Your task to perform on an android device: What's the weather going to be this weekend? Image 0: 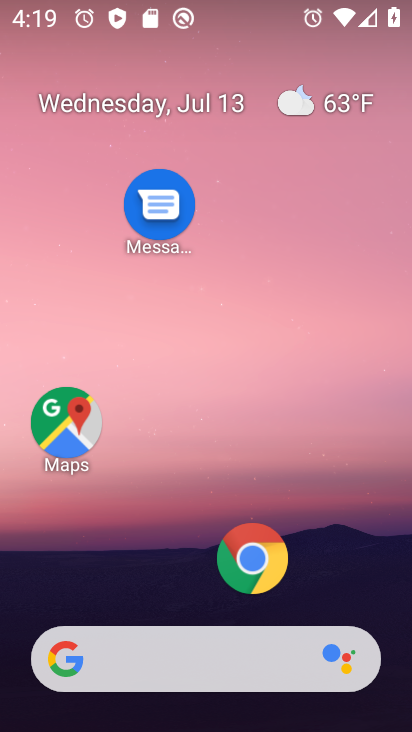
Step 0: drag from (201, 627) to (209, 324)
Your task to perform on an android device: What's the weather going to be this weekend? Image 1: 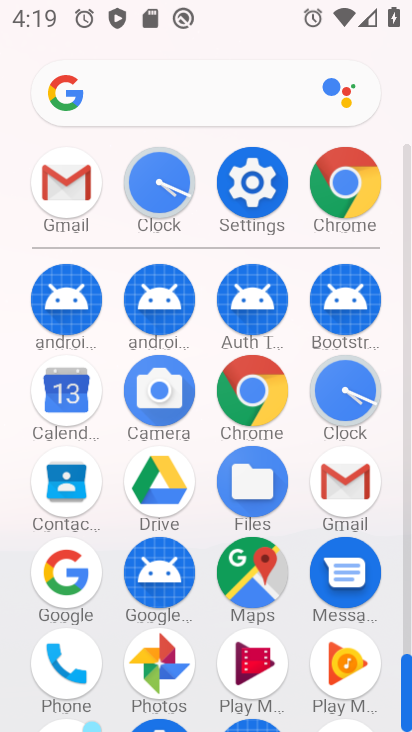
Step 1: click (52, 571)
Your task to perform on an android device: What's the weather going to be this weekend? Image 2: 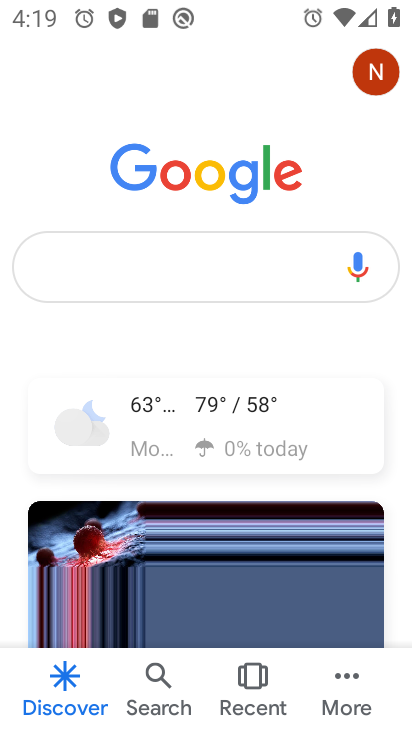
Step 2: click (135, 265)
Your task to perform on an android device: What's the weather going to be this weekend? Image 3: 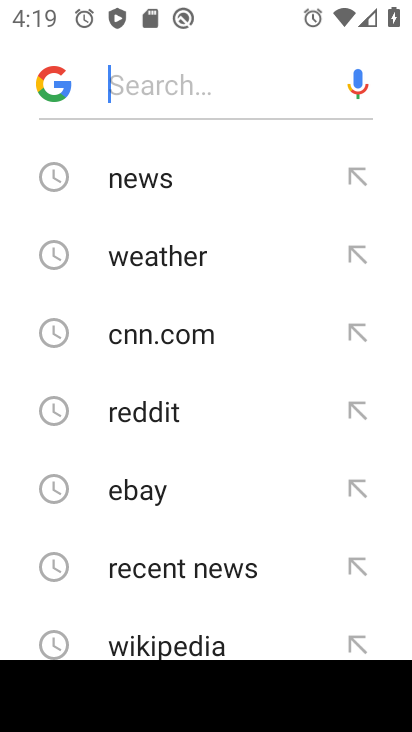
Step 3: click (133, 260)
Your task to perform on an android device: What's the weather going to be this weekend? Image 4: 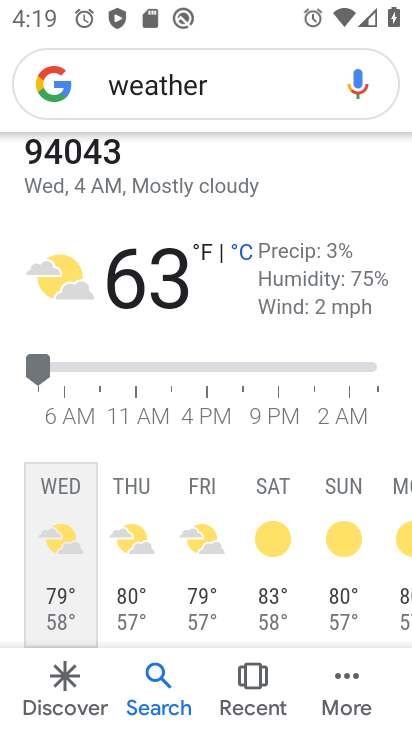
Step 4: task complete